Your task to perform on an android device: uninstall "Microsoft Outlook" Image 0: 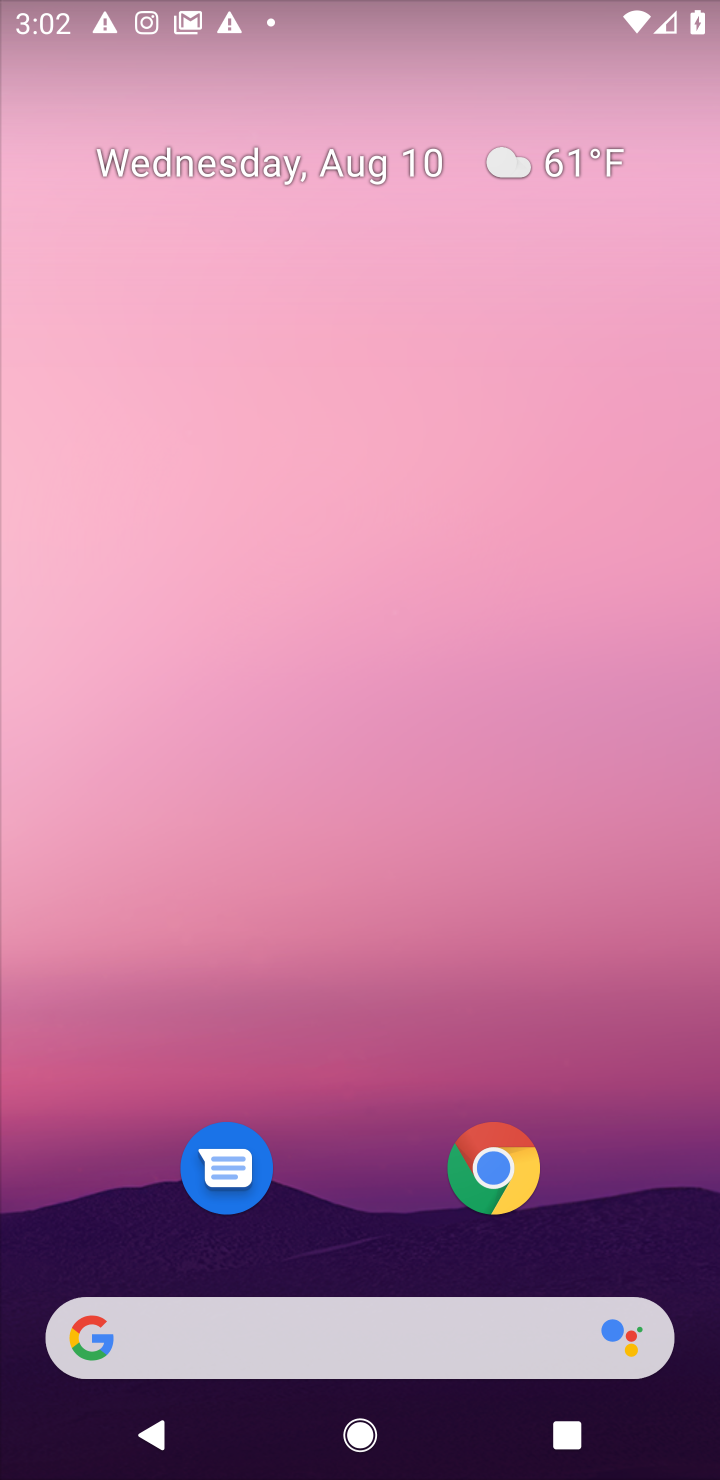
Step 0: drag from (267, 1361) to (260, 232)
Your task to perform on an android device: uninstall "Microsoft Outlook" Image 1: 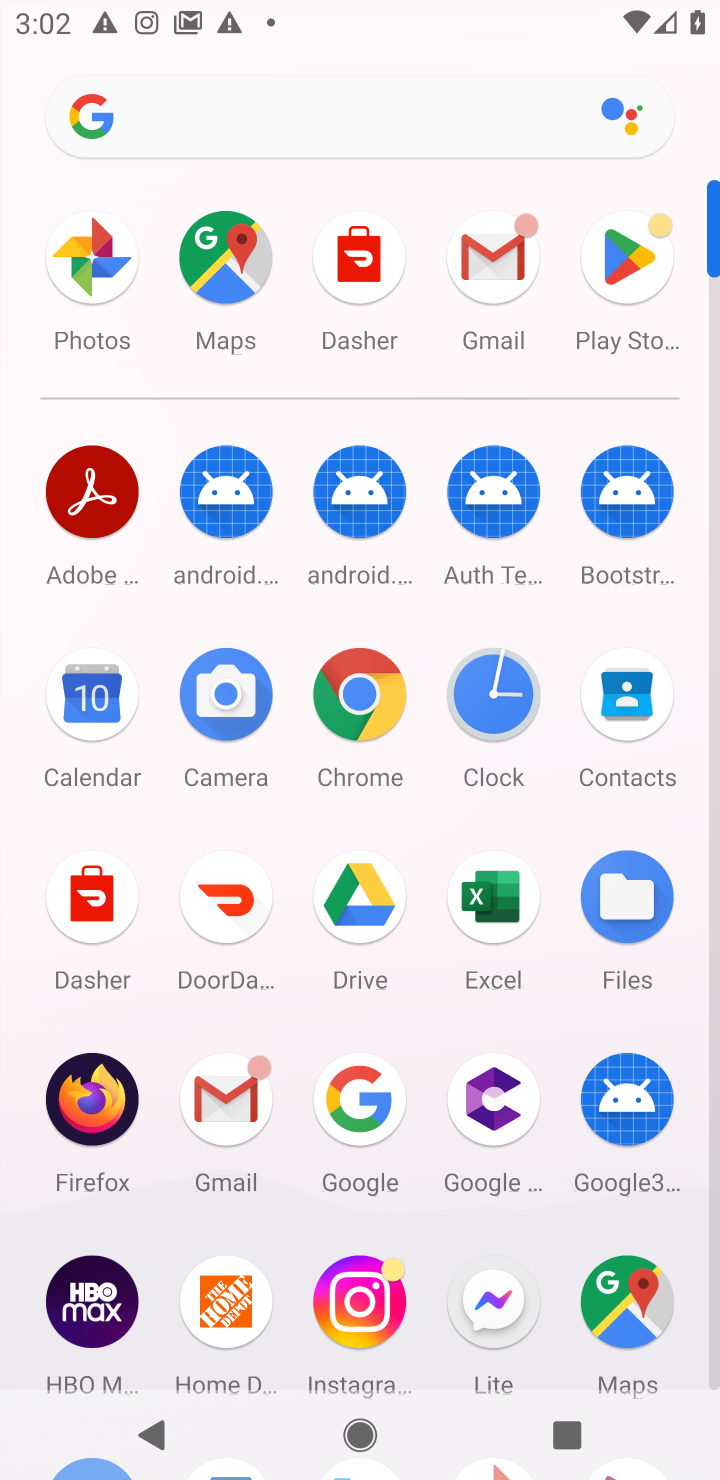
Step 1: click (619, 269)
Your task to perform on an android device: uninstall "Microsoft Outlook" Image 2: 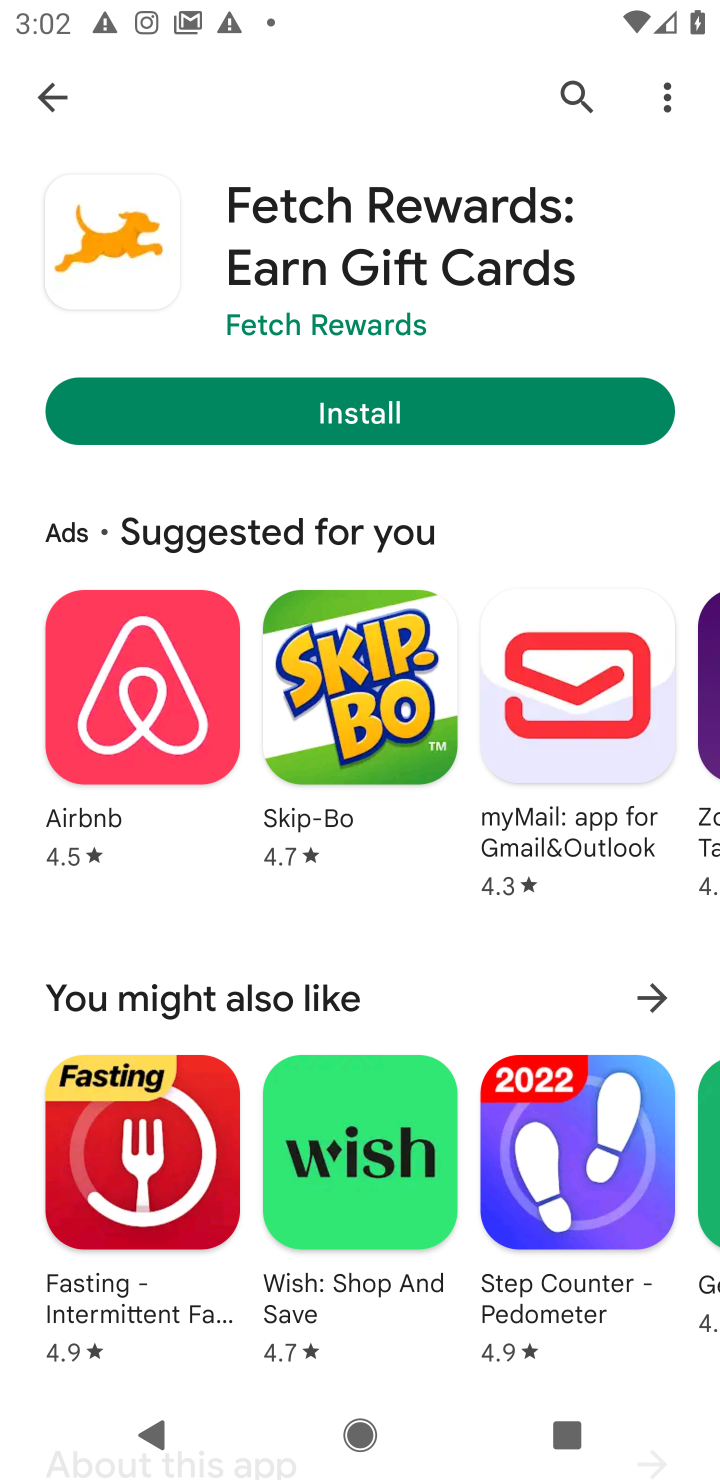
Step 2: press back button
Your task to perform on an android device: uninstall "Microsoft Outlook" Image 3: 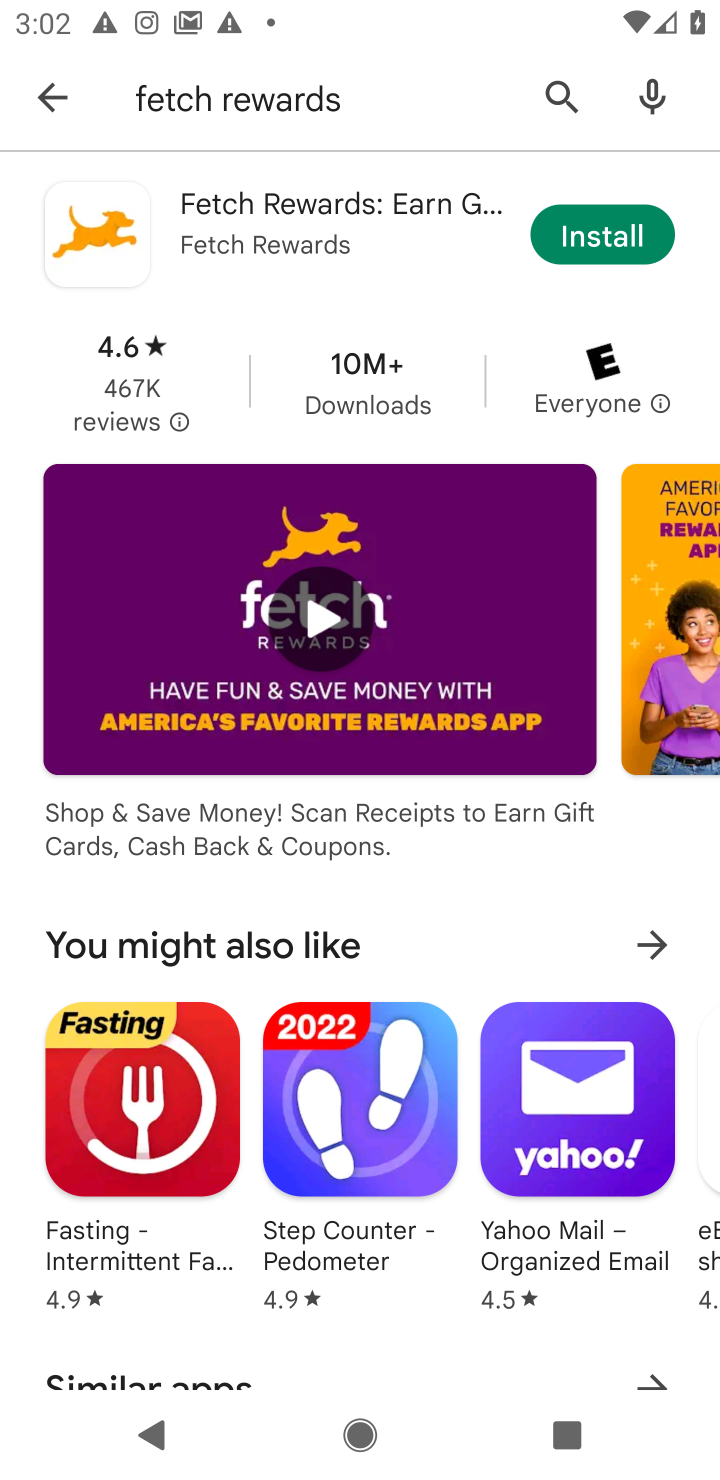
Step 3: press back button
Your task to perform on an android device: uninstall "Microsoft Outlook" Image 4: 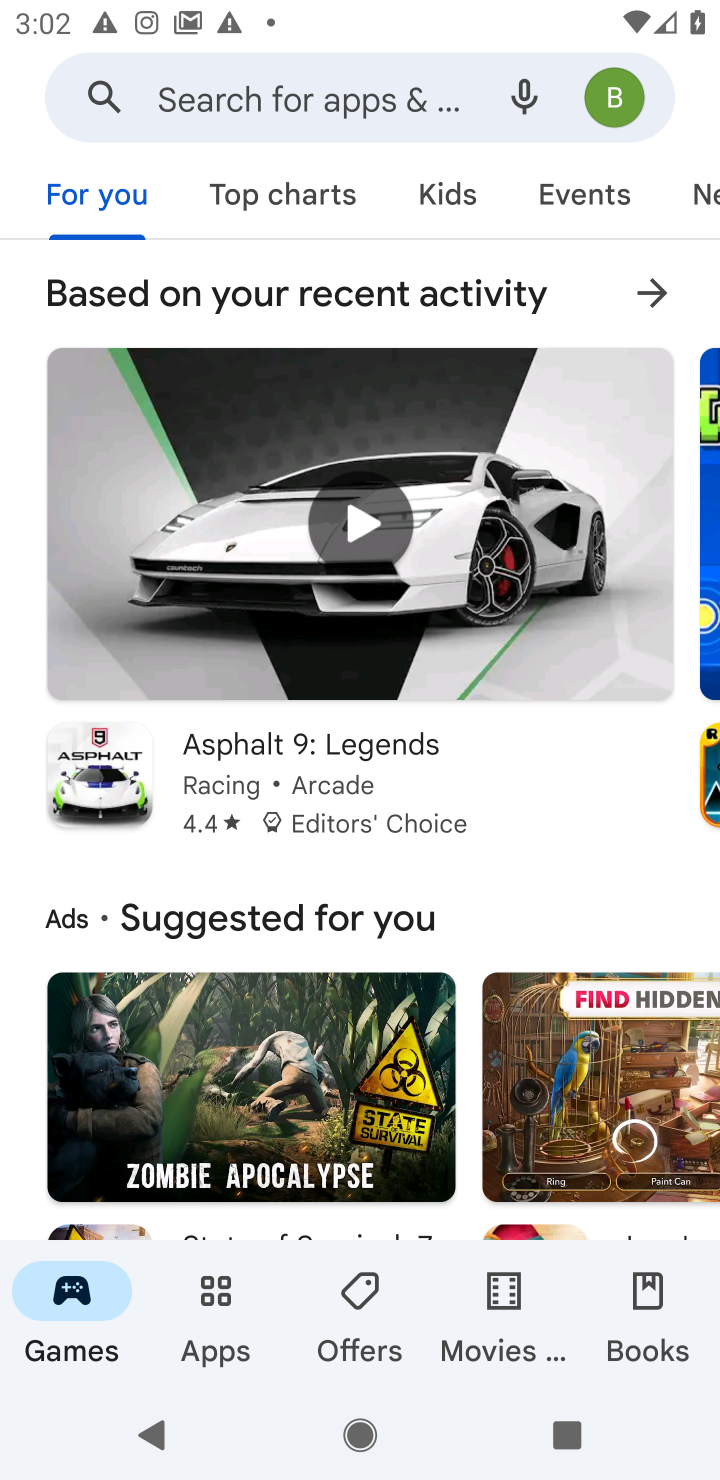
Step 4: click (346, 92)
Your task to perform on an android device: uninstall "Microsoft Outlook" Image 5: 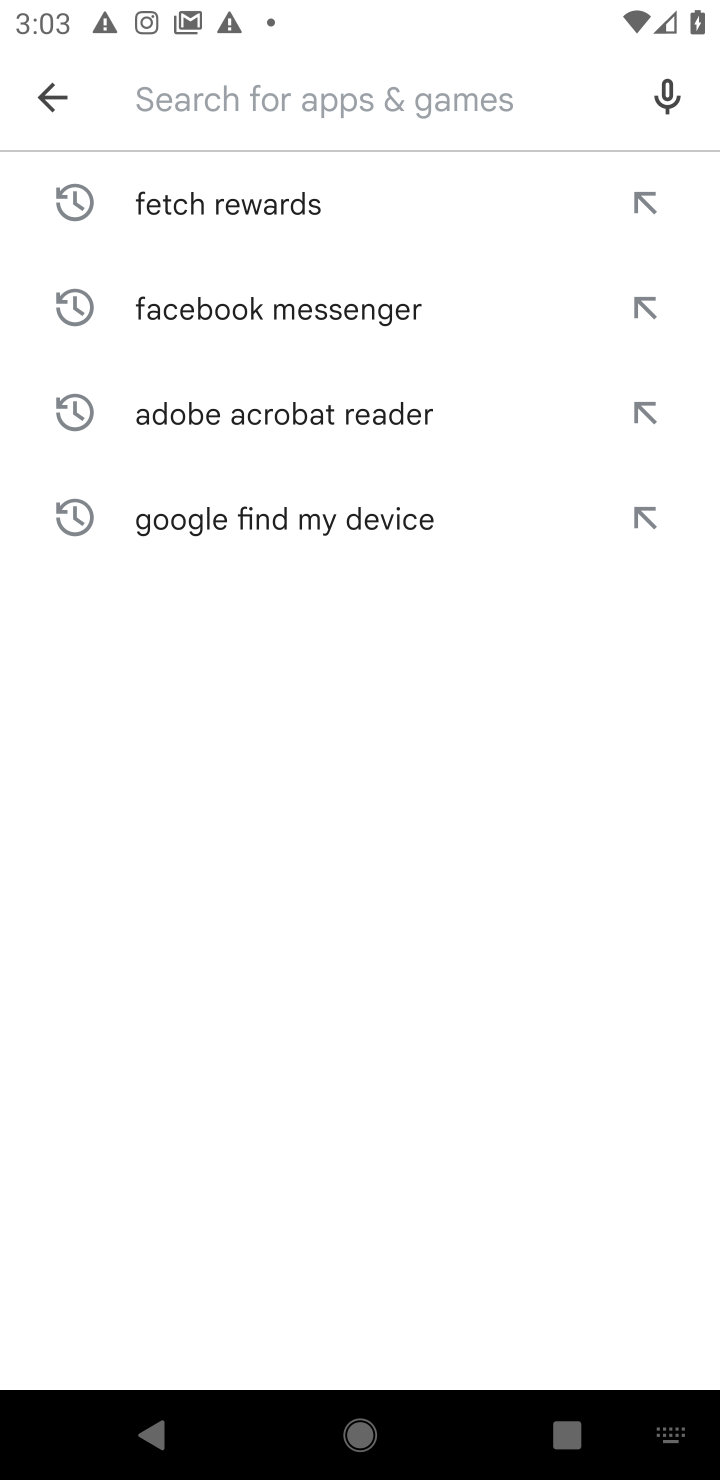
Step 5: type "Microsoft Outlook"
Your task to perform on an android device: uninstall "Microsoft Outlook" Image 6: 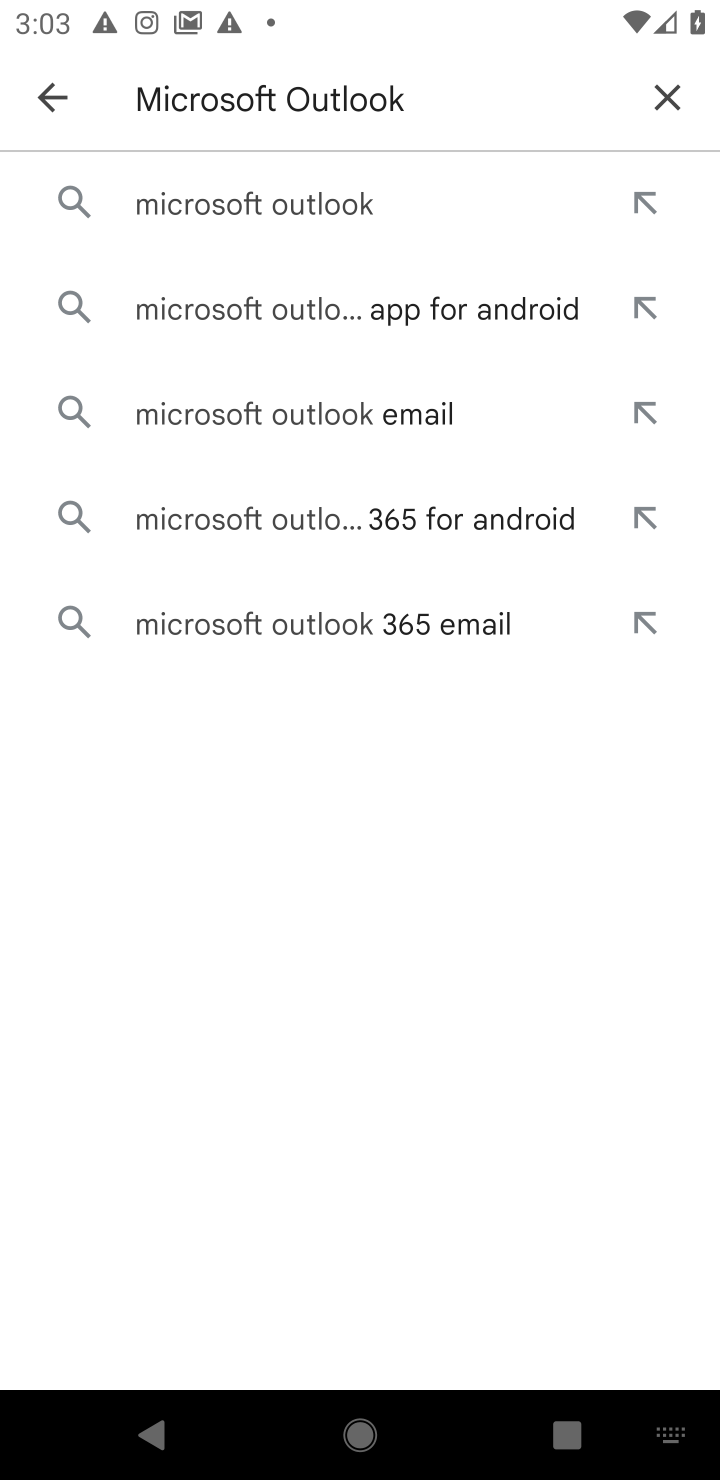
Step 6: click (314, 226)
Your task to perform on an android device: uninstall "Microsoft Outlook" Image 7: 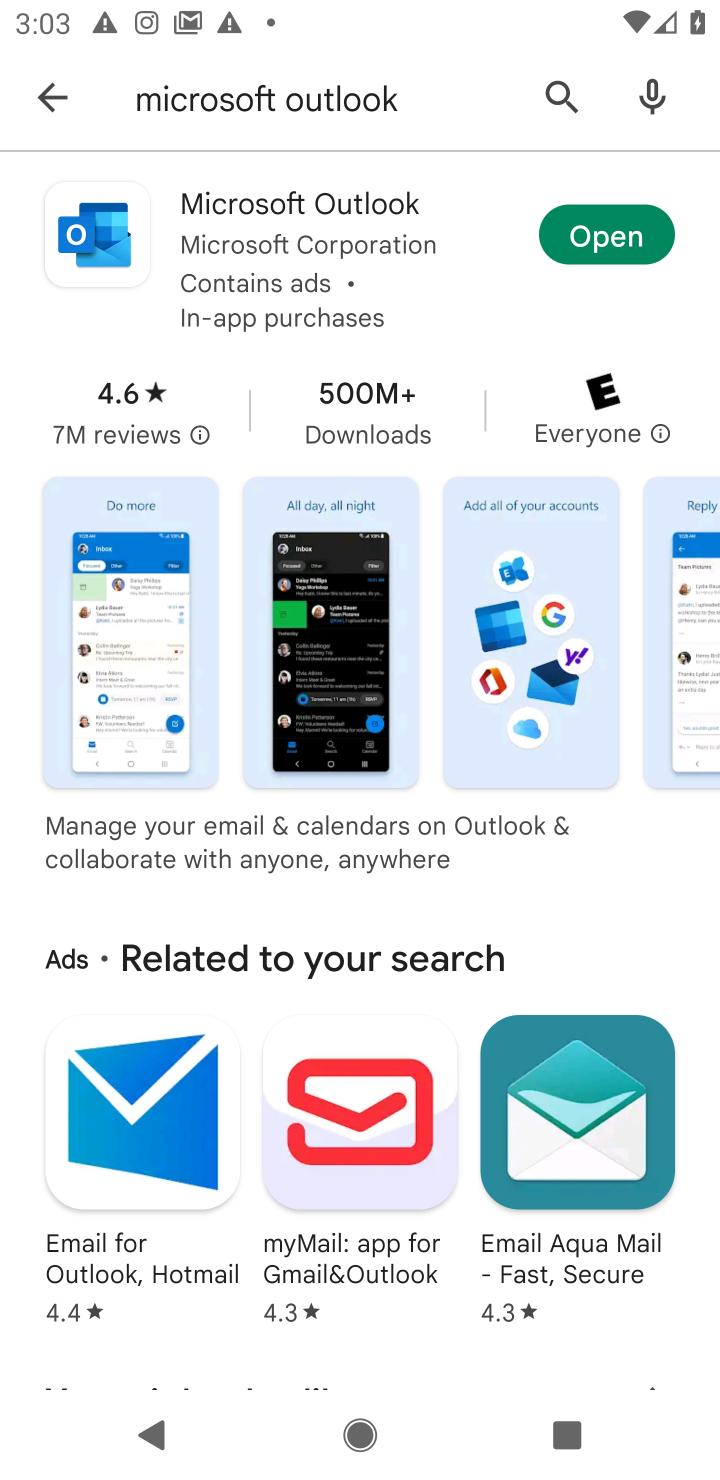
Step 7: click (261, 248)
Your task to perform on an android device: uninstall "Microsoft Outlook" Image 8: 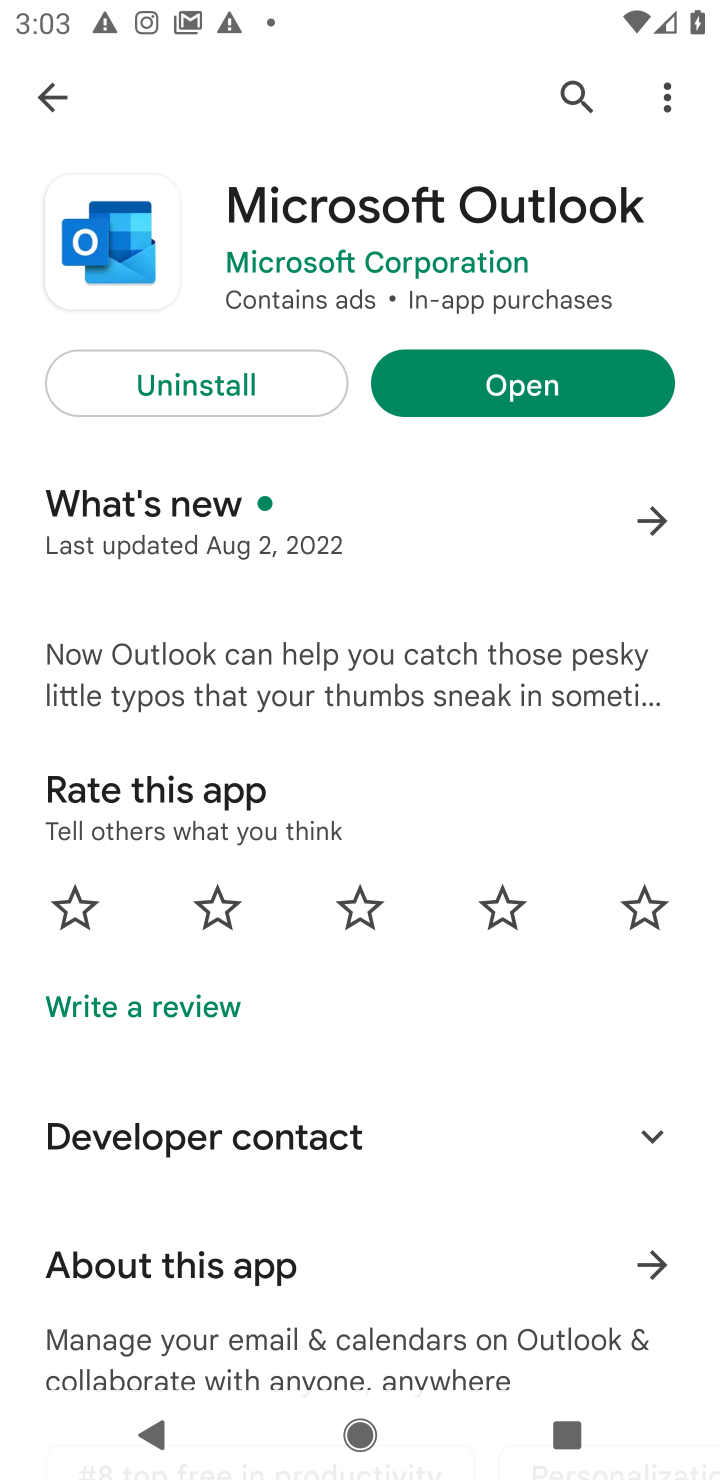
Step 8: click (226, 389)
Your task to perform on an android device: uninstall "Microsoft Outlook" Image 9: 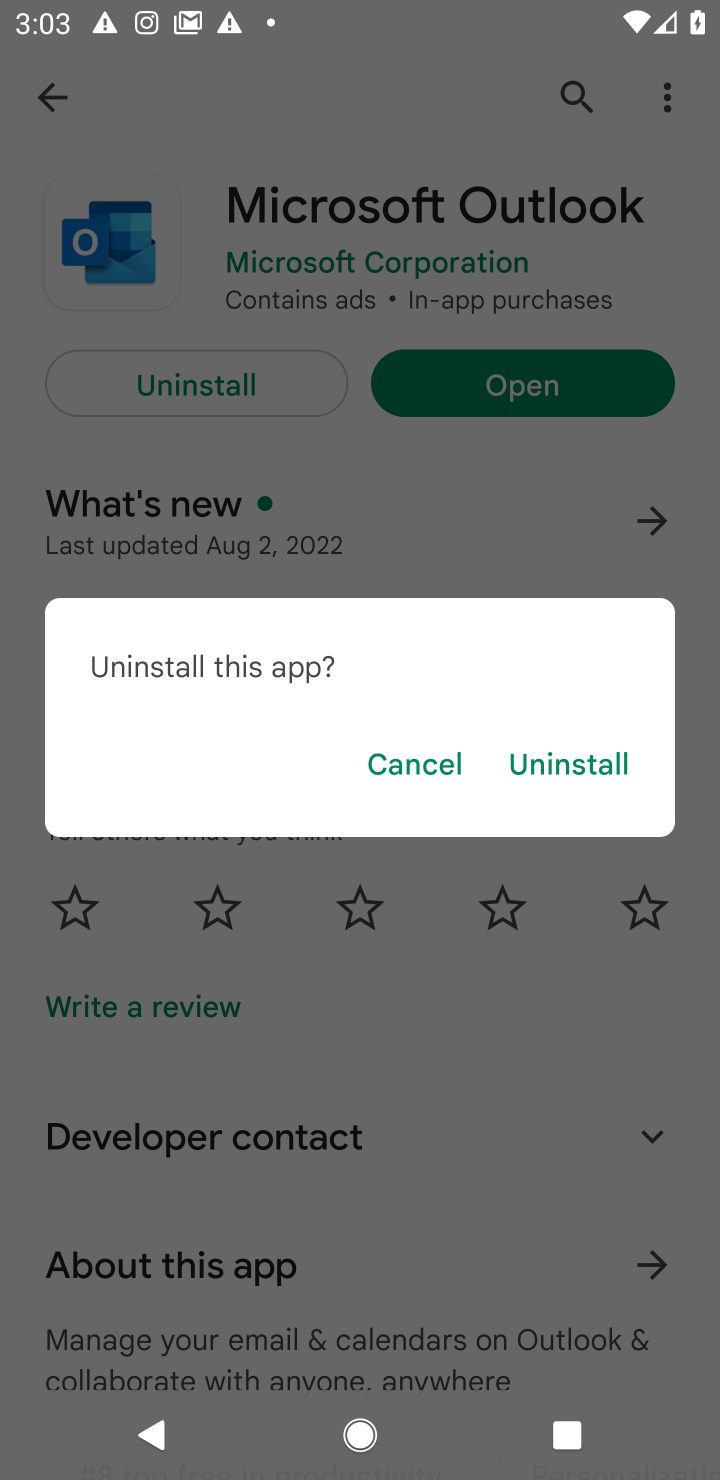
Step 9: click (594, 758)
Your task to perform on an android device: uninstall "Microsoft Outlook" Image 10: 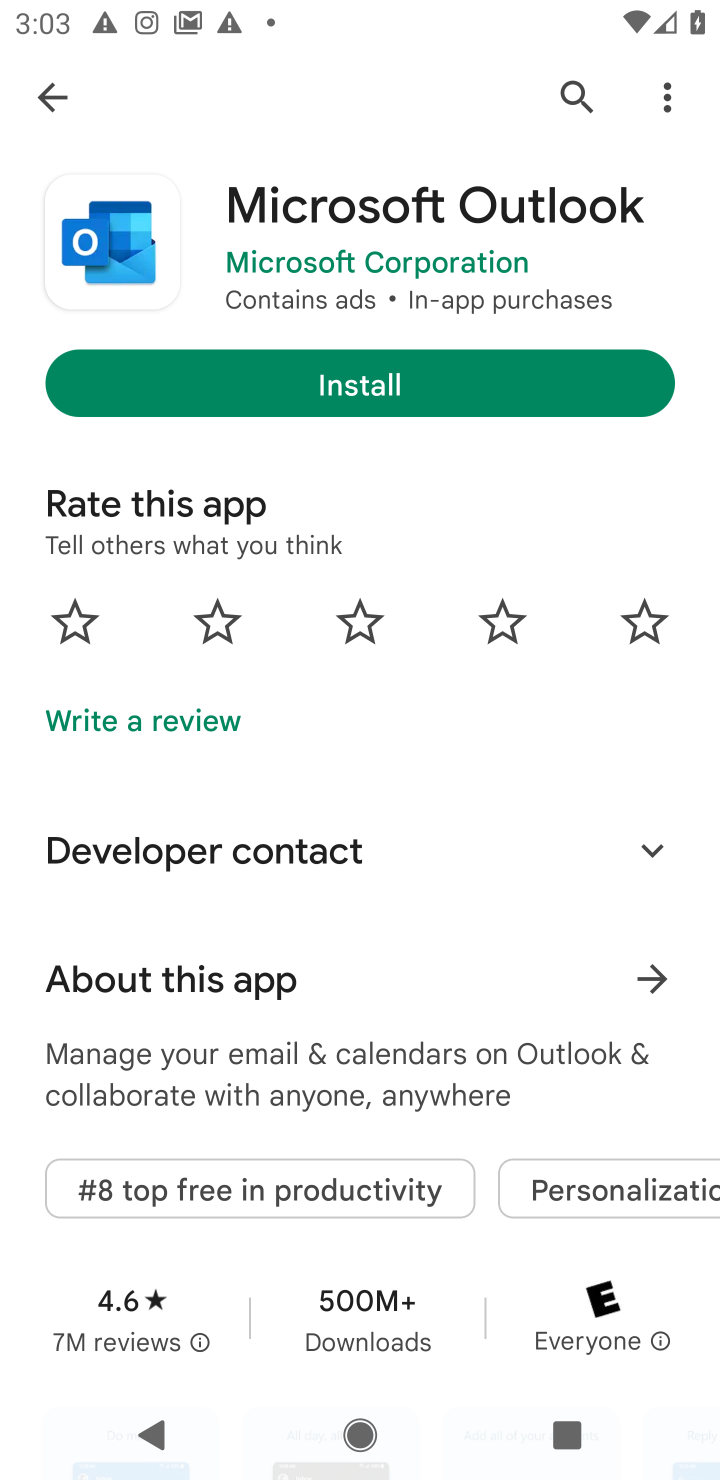
Step 10: task complete